Your task to perform on an android device: turn off location history Image 0: 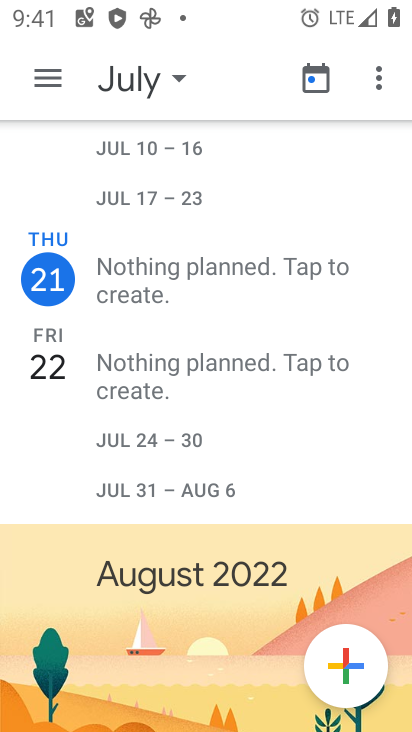
Step 0: press home button
Your task to perform on an android device: turn off location history Image 1: 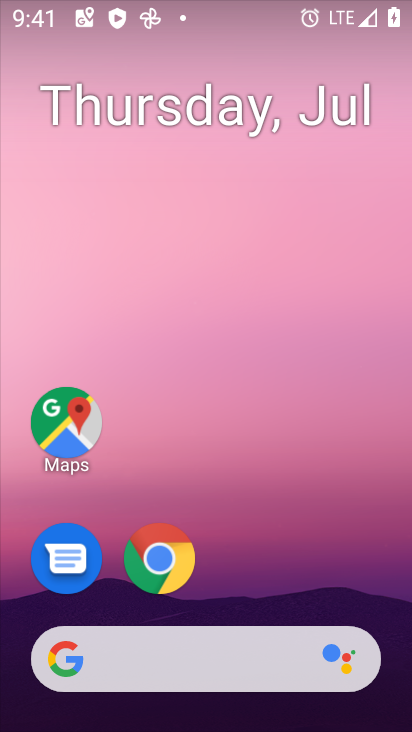
Step 1: drag from (347, 559) to (354, 151)
Your task to perform on an android device: turn off location history Image 2: 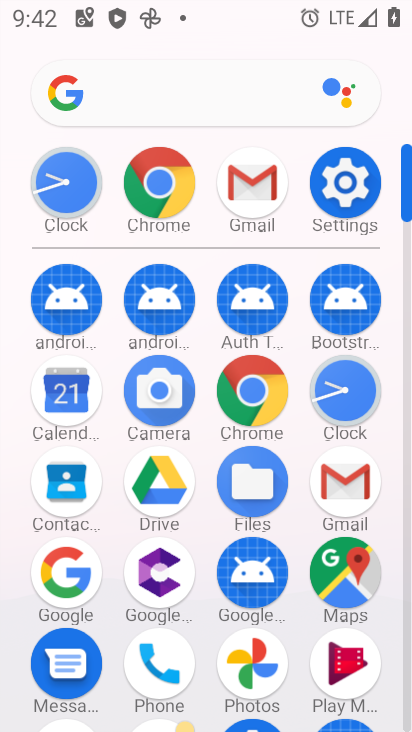
Step 2: click (362, 200)
Your task to perform on an android device: turn off location history Image 3: 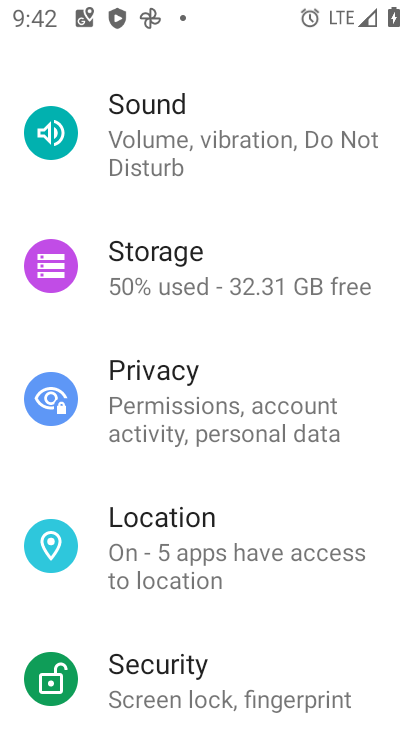
Step 3: drag from (361, 206) to (350, 277)
Your task to perform on an android device: turn off location history Image 4: 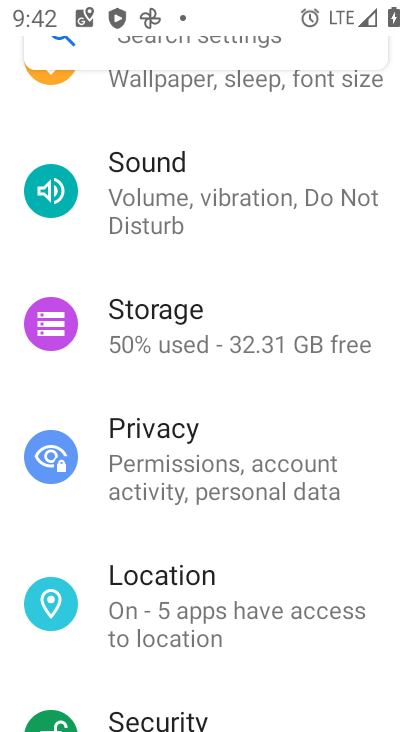
Step 4: drag from (345, 239) to (346, 286)
Your task to perform on an android device: turn off location history Image 5: 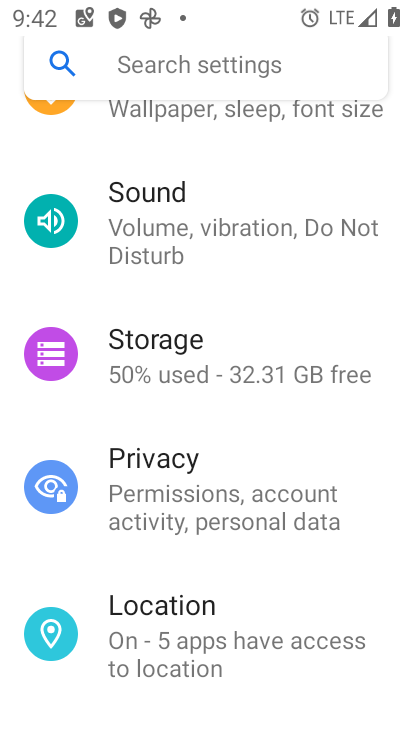
Step 5: click (346, 274)
Your task to perform on an android device: turn off location history Image 6: 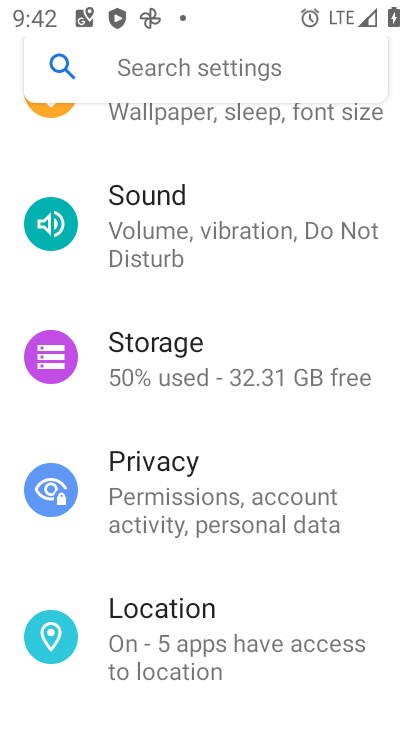
Step 6: drag from (346, 249) to (346, 312)
Your task to perform on an android device: turn off location history Image 7: 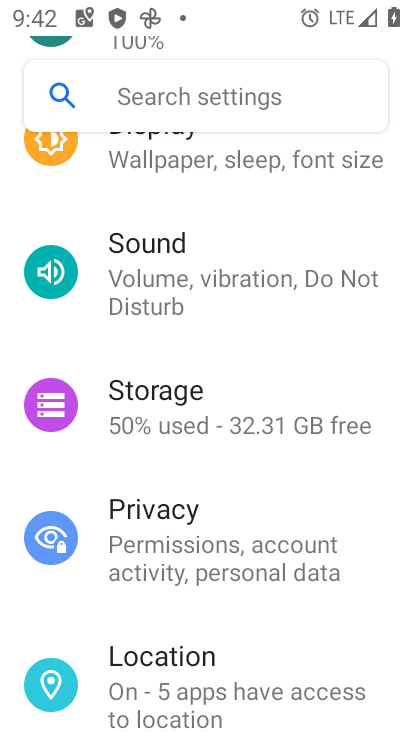
Step 7: drag from (355, 267) to (357, 515)
Your task to perform on an android device: turn off location history Image 8: 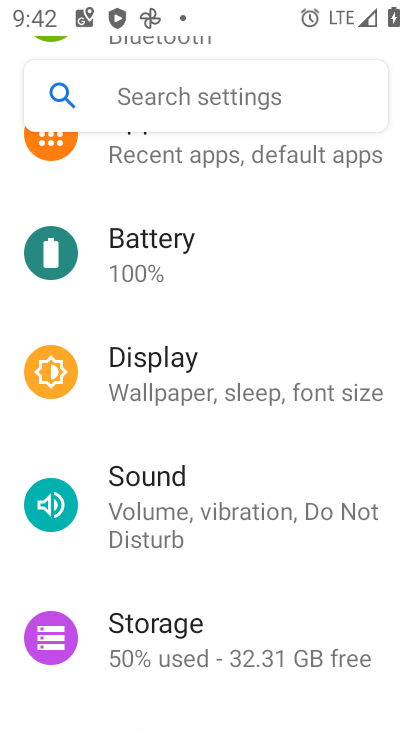
Step 8: drag from (348, 316) to (347, 451)
Your task to perform on an android device: turn off location history Image 9: 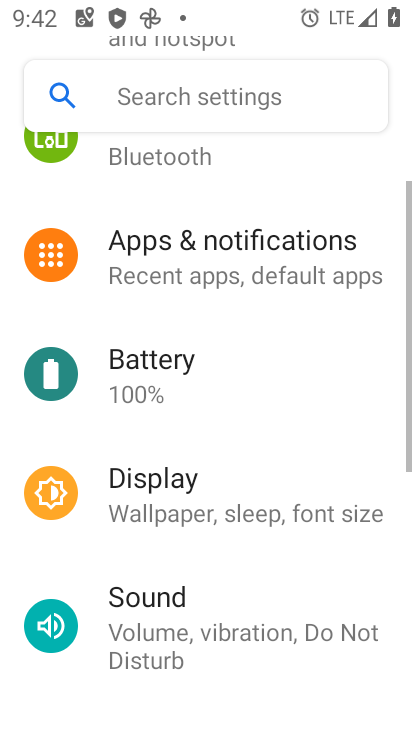
Step 9: drag from (350, 547) to (357, 415)
Your task to perform on an android device: turn off location history Image 10: 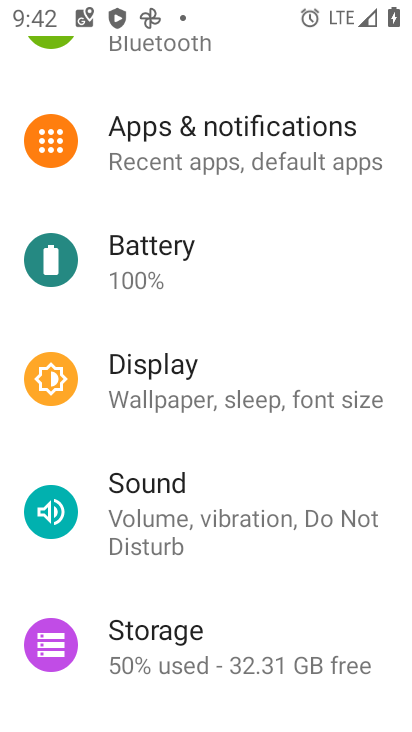
Step 10: drag from (358, 583) to (378, 394)
Your task to perform on an android device: turn off location history Image 11: 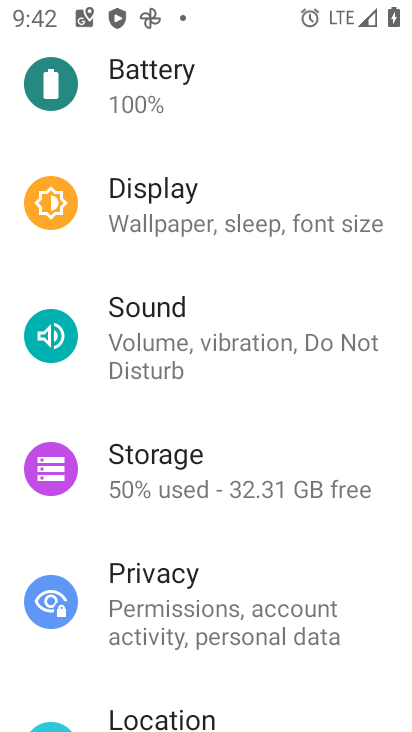
Step 11: drag from (354, 596) to (363, 441)
Your task to perform on an android device: turn off location history Image 12: 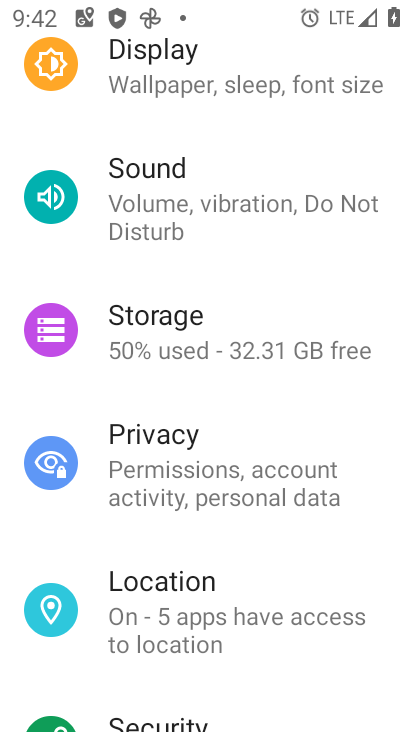
Step 12: drag from (345, 557) to (355, 402)
Your task to perform on an android device: turn off location history Image 13: 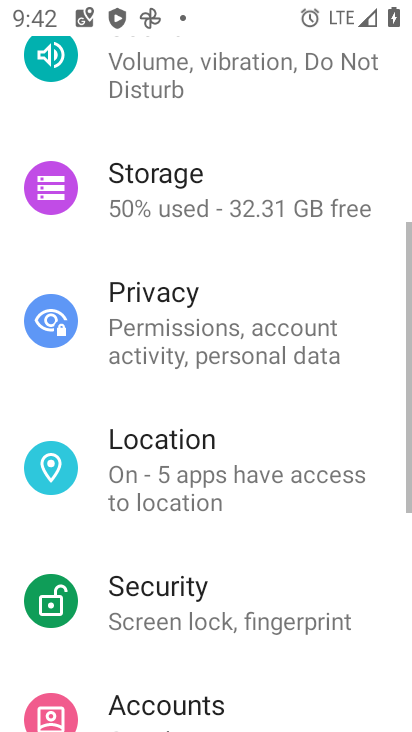
Step 13: drag from (337, 607) to (340, 496)
Your task to perform on an android device: turn off location history Image 14: 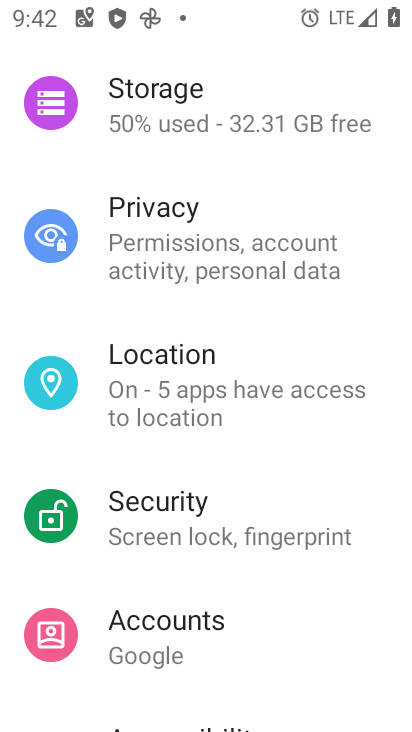
Step 14: click (294, 409)
Your task to perform on an android device: turn off location history Image 15: 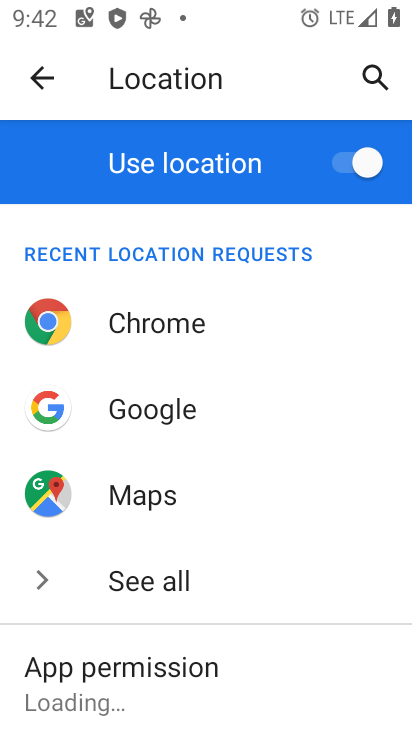
Step 15: drag from (307, 574) to (320, 463)
Your task to perform on an android device: turn off location history Image 16: 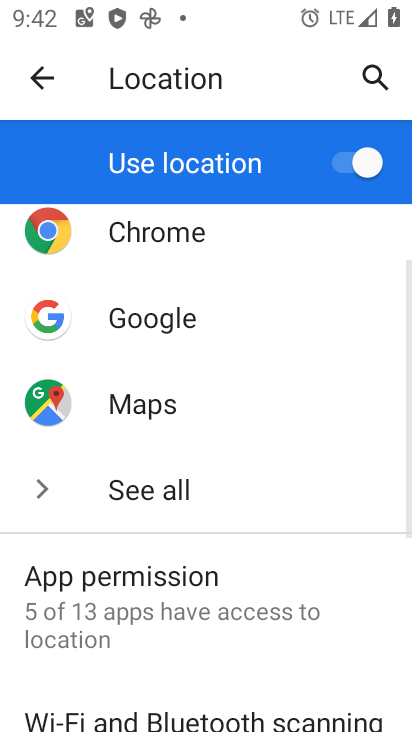
Step 16: drag from (328, 596) to (346, 470)
Your task to perform on an android device: turn off location history Image 17: 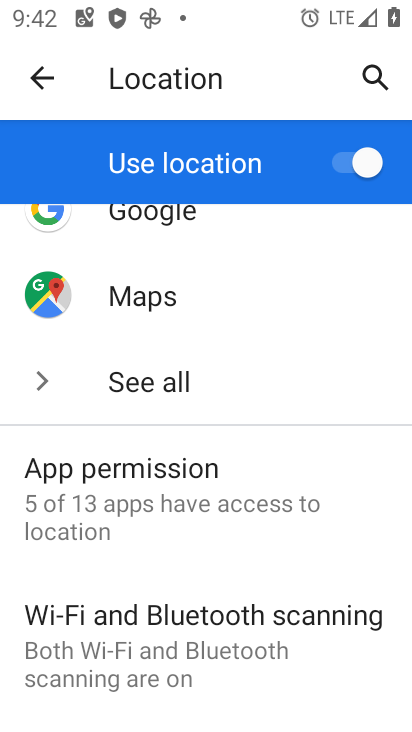
Step 17: drag from (331, 643) to (342, 513)
Your task to perform on an android device: turn off location history Image 18: 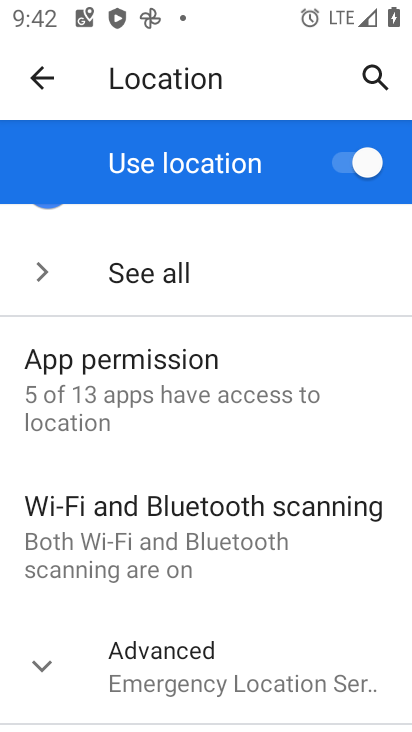
Step 18: click (318, 653)
Your task to perform on an android device: turn off location history Image 19: 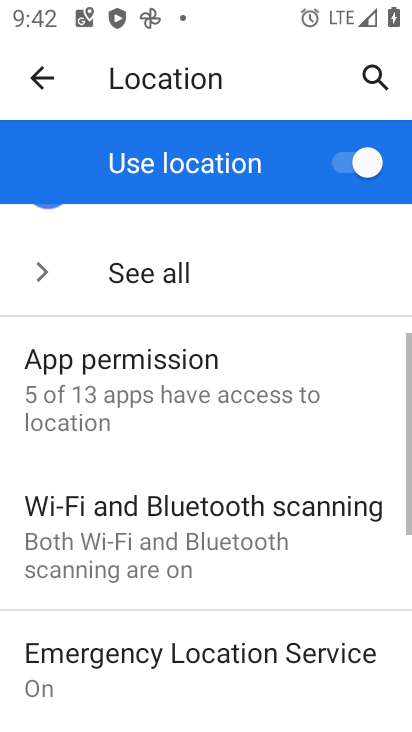
Step 19: task complete